Your task to perform on an android device: turn notification dots on Image 0: 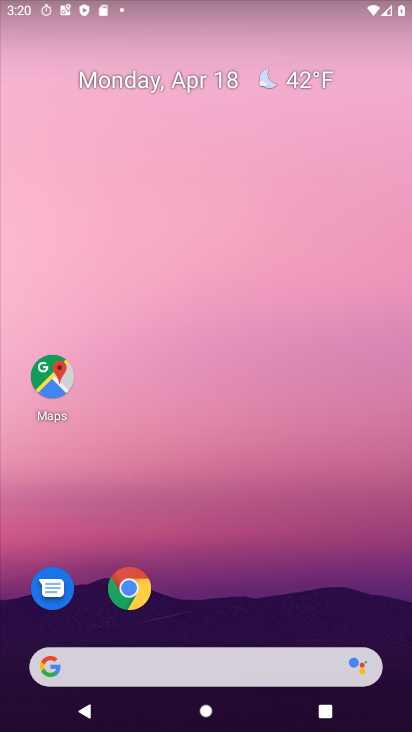
Step 0: drag from (300, 18) to (304, 492)
Your task to perform on an android device: turn notification dots on Image 1: 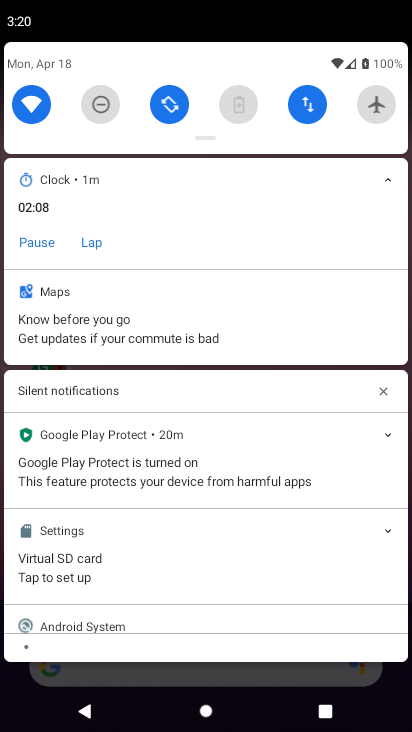
Step 1: drag from (164, 58) to (330, 712)
Your task to perform on an android device: turn notification dots on Image 2: 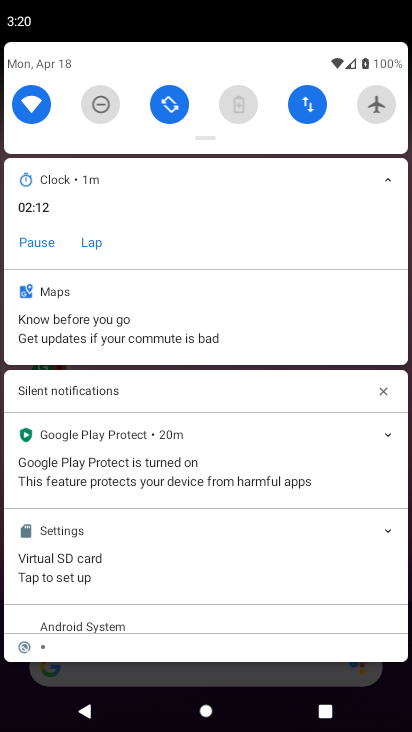
Step 2: drag from (267, 78) to (307, 451)
Your task to perform on an android device: turn notification dots on Image 3: 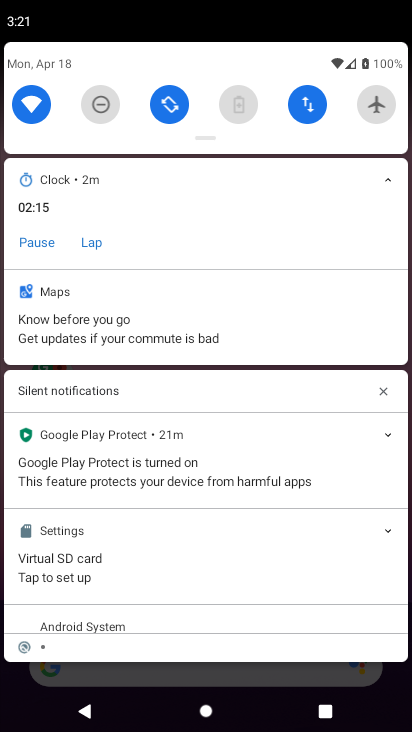
Step 3: drag from (202, 79) to (335, 529)
Your task to perform on an android device: turn notification dots on Image 4: 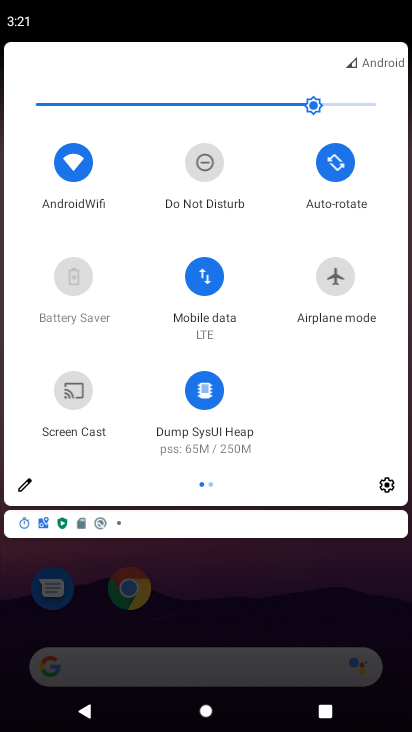
Step 4: click (386, 489)
Your task to perform on an android device: turn notification dots on Image 5: 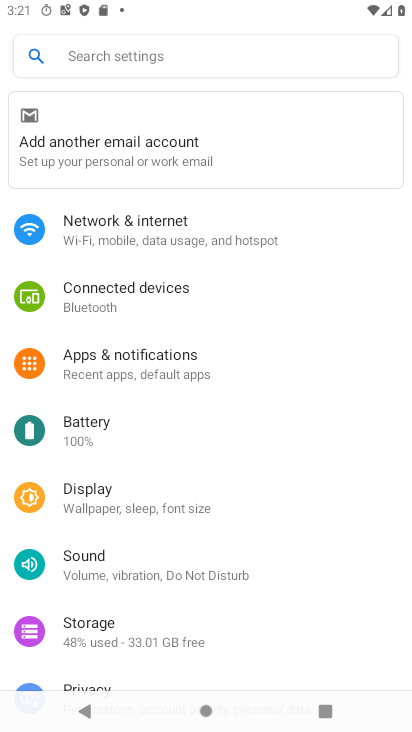
Step 5: click (167, 370)
Your task to perform on an android device: turn notification dots on Image 6: 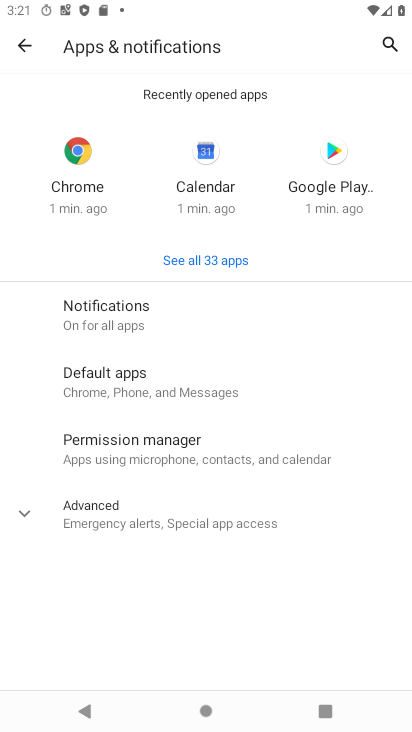
Step 6: click (138, 337)
Your task to perform on an android device: turn notification dots on Image 7: 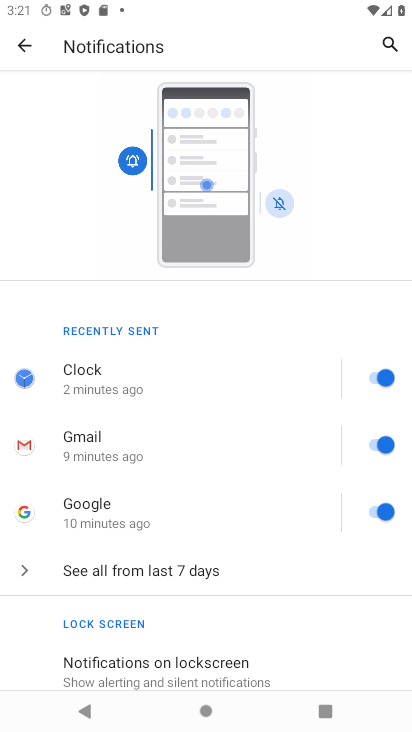
Step 7: drag from (161, 653) to (113, 85)
Your task to perform on an android device: turn notification dots on Image 8: 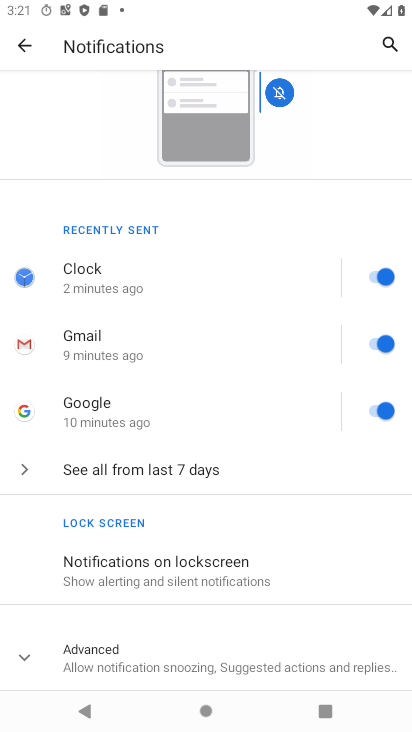
Step 8: click (149, 667)
Your task to perform on an android device: turn notification dots on Image 9: 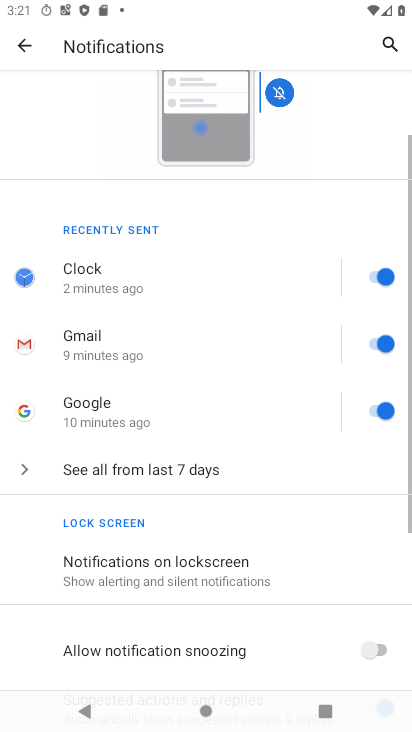
Step 9: task complete